Your task to perform on an android device: set an alarm Image 0: 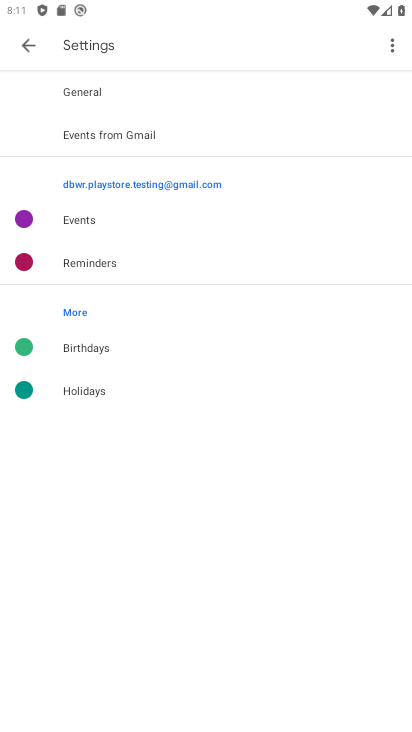
Step 0: press home button
Your task to perform on an android device: set an alarm Image 1: 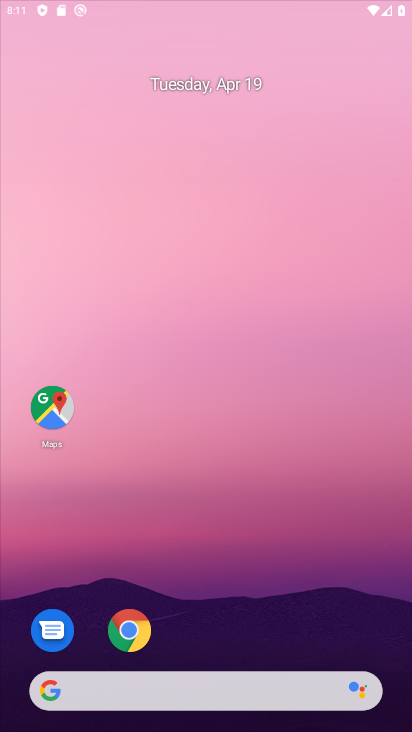
Step 1: drag from (210, 617) to (278, 144)
Your task to perform on an android device: set an alarm Image 2: 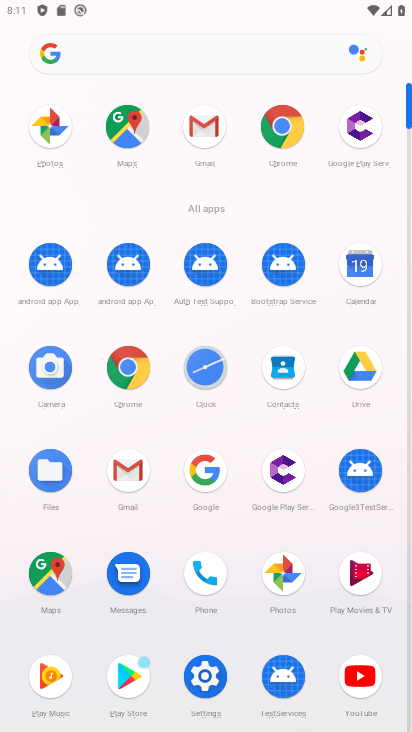
Step 2: click (191, 369)
Your task to perform on an android device: set an alarm Image 3: 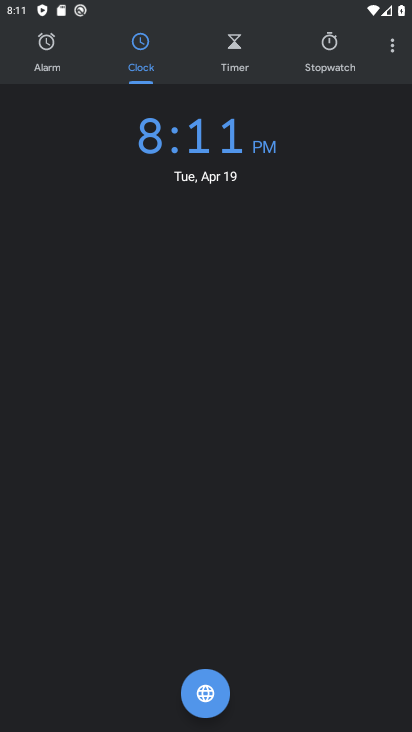
Step 3: click (52, 60)
Your task to perform on an android device: set an alarm Image 4: 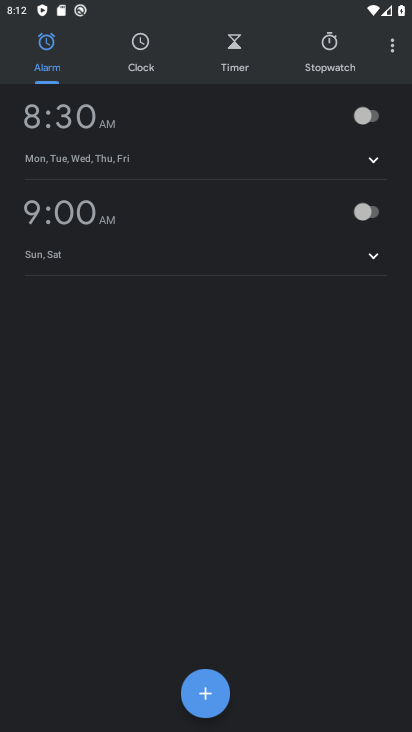
Step 4: click (204, 709)
Your task to perform on an android device: set an alarm Image 5: 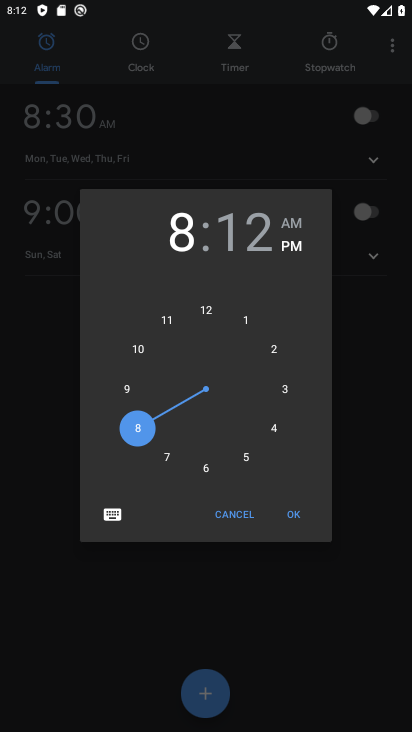
Step 5: click (295, 517)
Your task to perform on an android device: set an alarm Image 6: 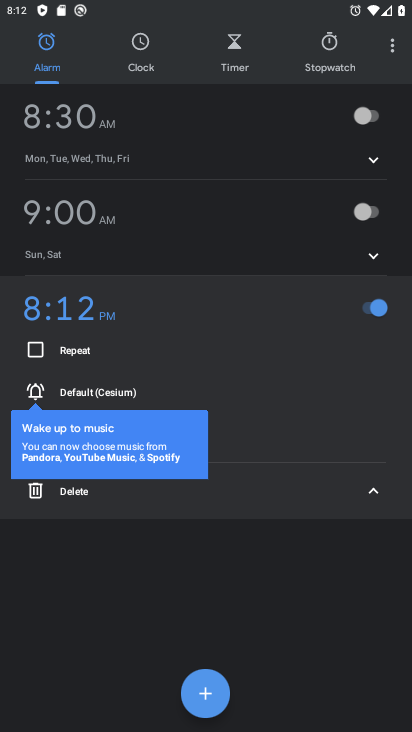
Step 6: task complete